Your task to perform on an android device: Open sound settings Image 0: 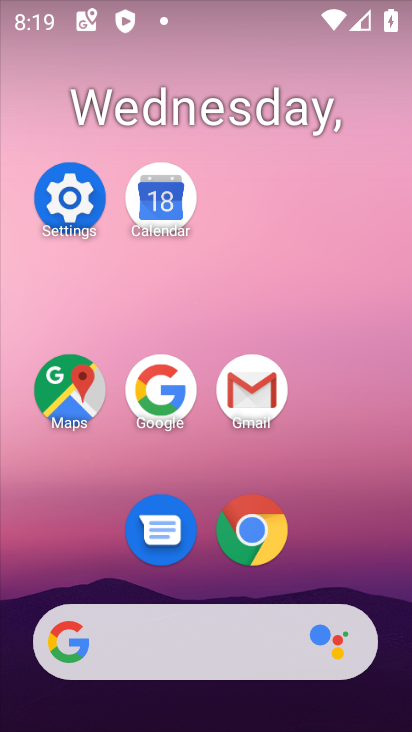
Step 0: click (60, 157)
Your task to perform on an android device: Open sound settings Image 1: 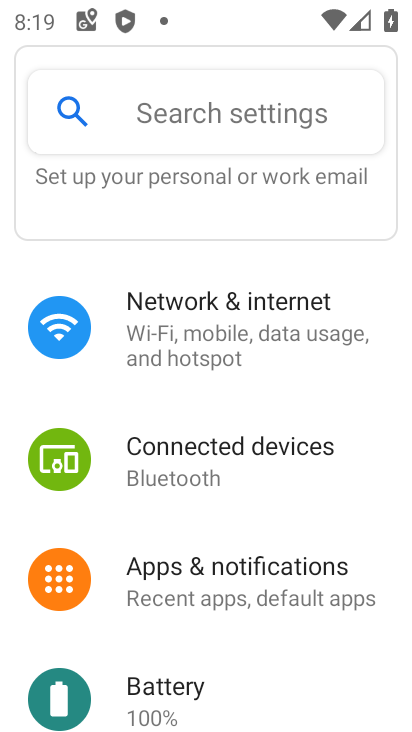
Step 1: drag from (256, 560) to (272, 274)
Your task to perform on an android device: Open sound settings Image 2: 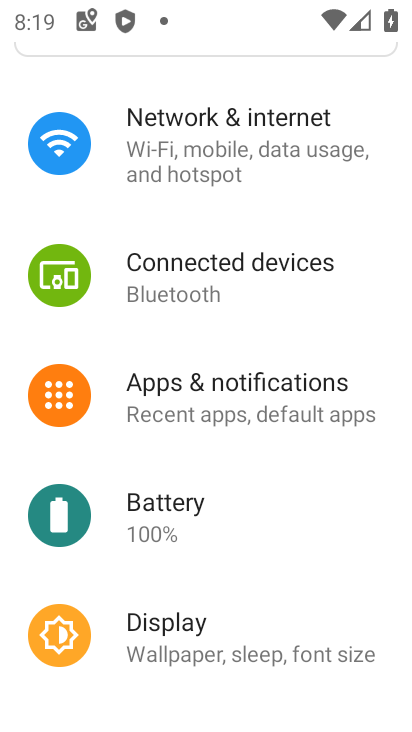
Step 2: drag from (227, 597) to (288, 201)
Your task to perform on an android device: Open sound settings Image 3: 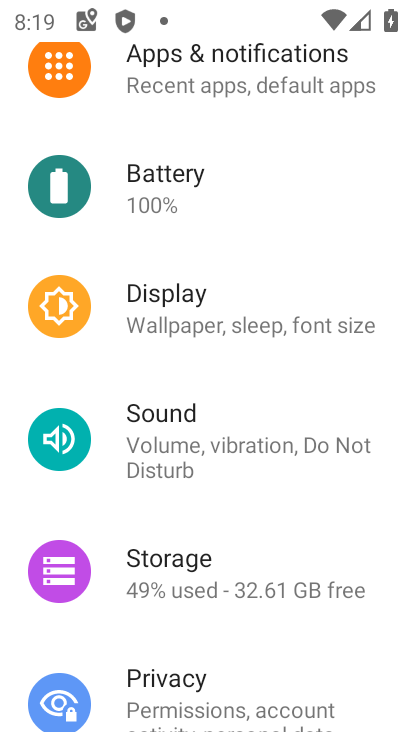
Step 3: click (207, 408)
Your task to perform on an android device: Open sound settings Image 4: 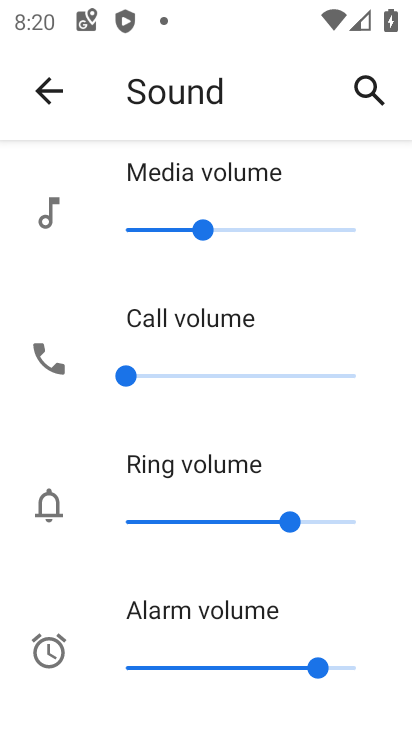
Step 4: task complete